Your task to perform on an android device: Open the calendar and show me this week's events? Image 0: 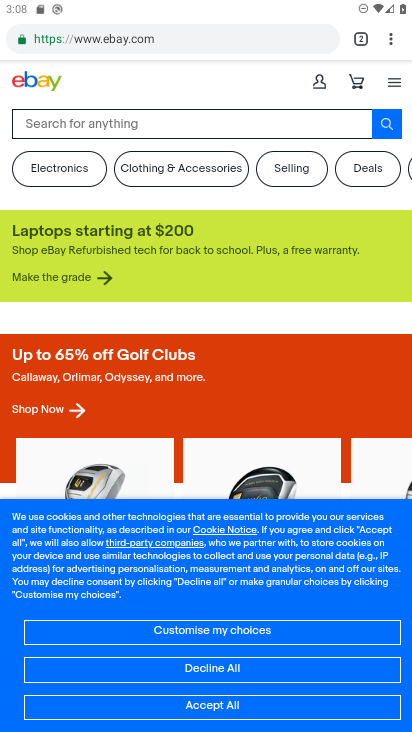
Step 0: press home button
Your task to perform on an android device: Open the calendar and show me this week's events? Image 1: 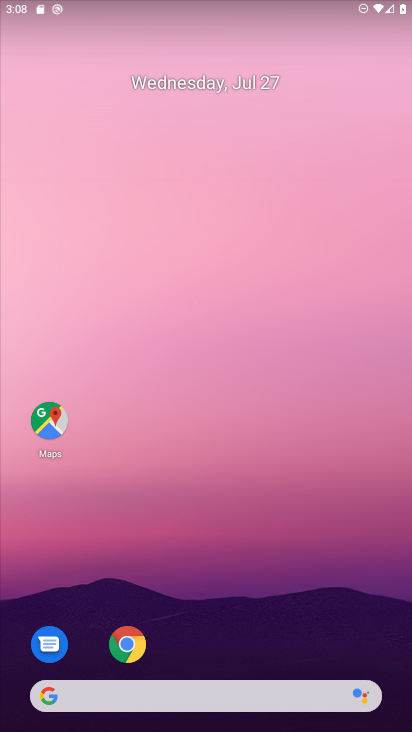
Step 1: drag from (209, 622) to (206, 18)
Your task to perform on an android device: Open the calendar and show me this week's events? Image 2: 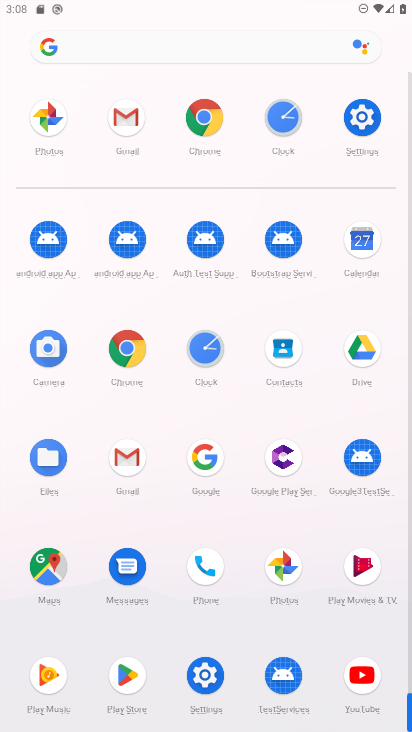
Step 2: click (378, 263)
Your task to perform on an android device: Open the calendar and show me this week's events? Image 3: 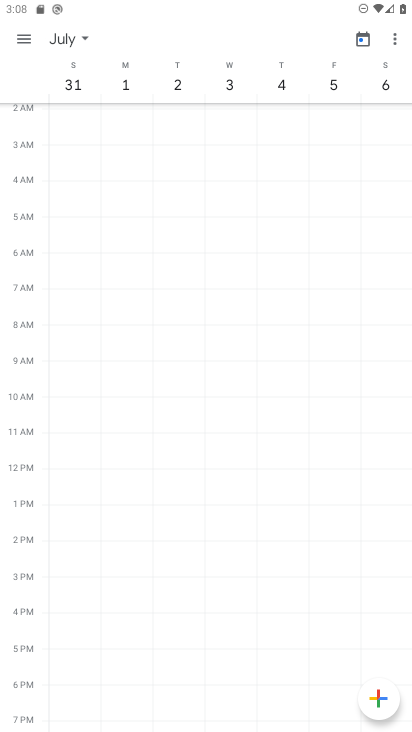
Step 3: click (24, 42)
Your task to perform on an android device: Open the calendar and show me this week's events? Image 4: 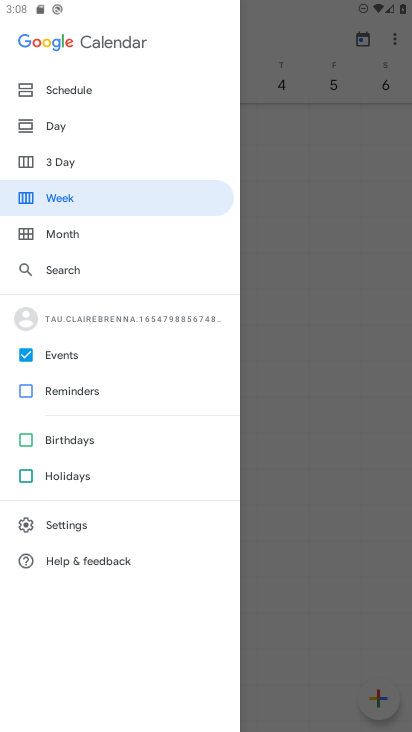
Step 4: click (286, 171)
Your task to perform on an android device: Open the calendar and show me this week's events? Image 5: 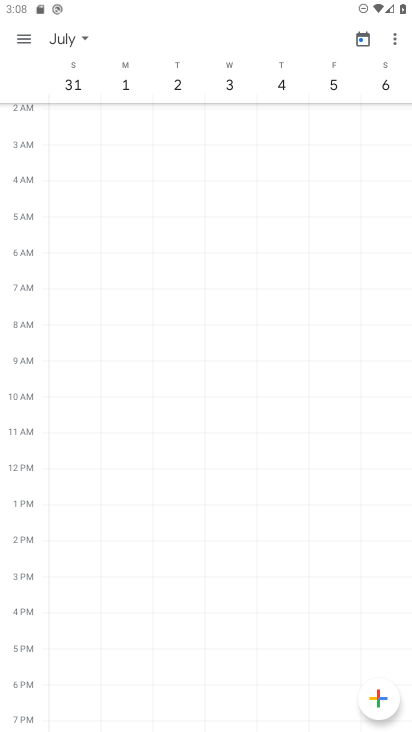
Step 5: task complete